Your task to perform on an android device: Show me popular videos on Youtube Image 0: 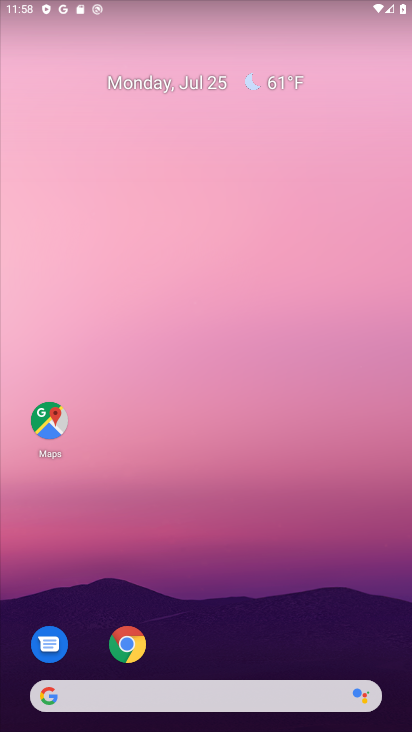
Step 0: drag from (216, 628) to (222, 140)
Your task to perform on an android device: Show me popular videos on Youtube Image 1: 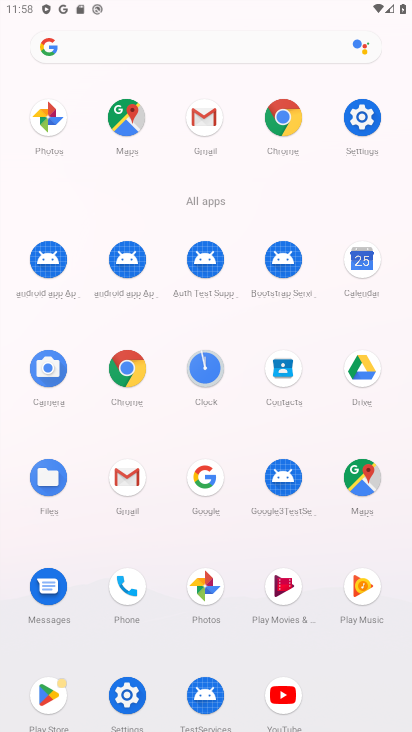
Step 1: click (285, 699)
Your task to perform on an android device: Show me popular videos on Youtube Image 2: 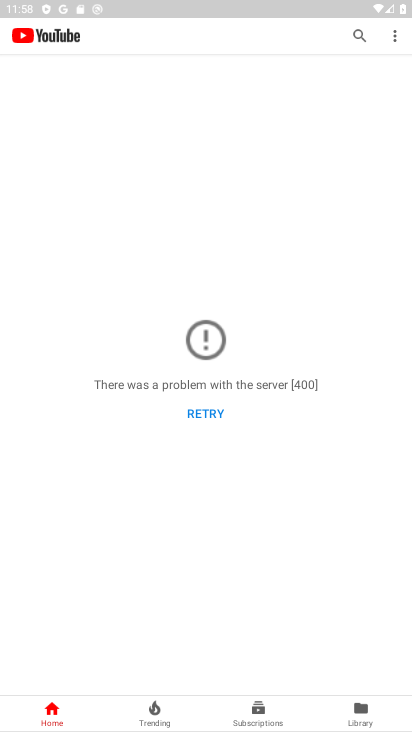
Step 2: click (192, 414)
Your task to perform on an android device: Show me popular videos on Youtube Image 3: 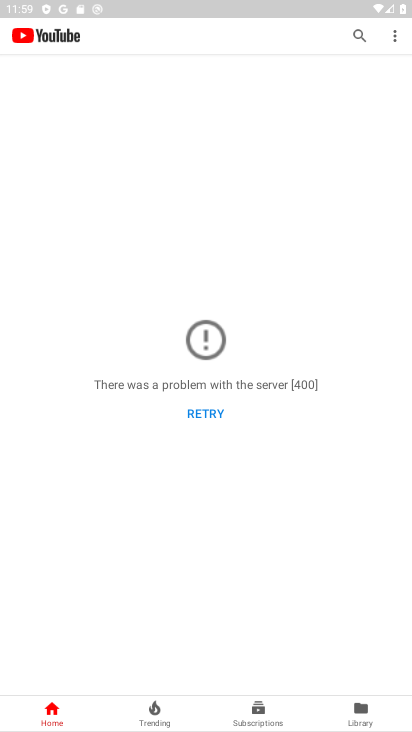
Step 3: click (192, 414)
Your task to perform on an android device: Show me popular videos on Youtube Image 4: 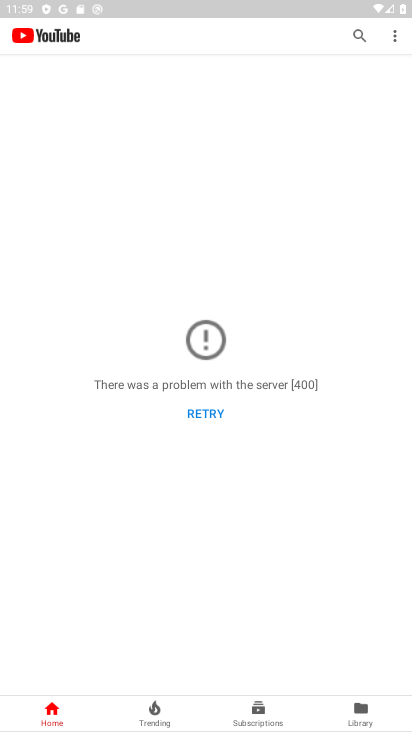
Step 4: task complete